Your task to perform on an android device: delete location history Image 0: 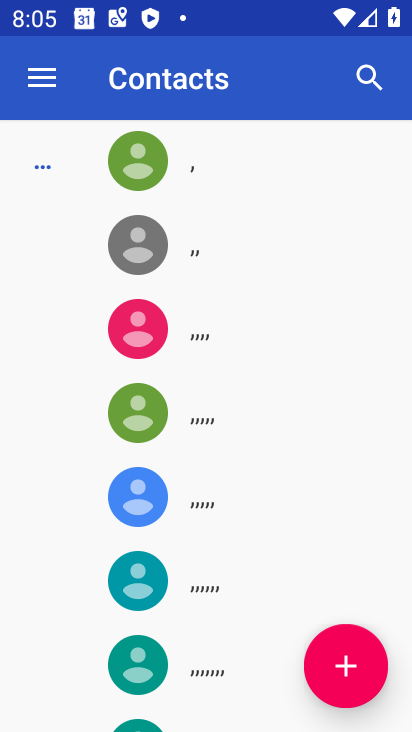
Step 0: press back button
Your task to perform on an android device: delete location history Image 1: 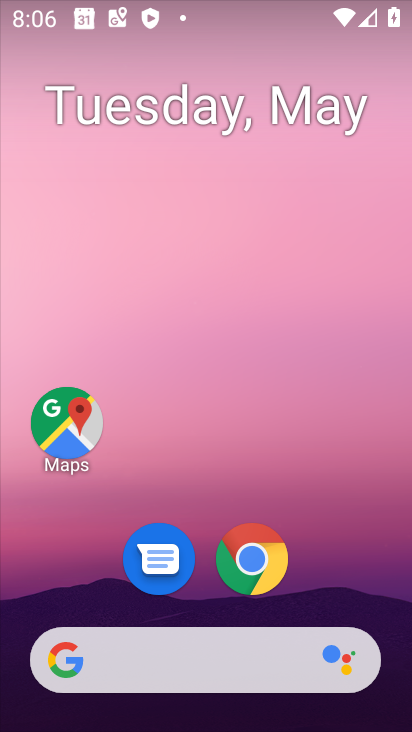
Step 1: drag from (322, 580) to (176, 209)
Your task to perform on an android device: delete location history Image 2: 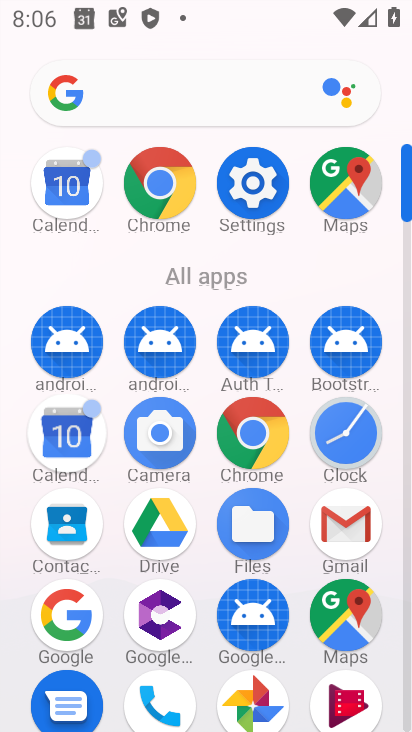
Step 2: click (340, 620)
Your task to perform on an android device: delete location history Image 3: 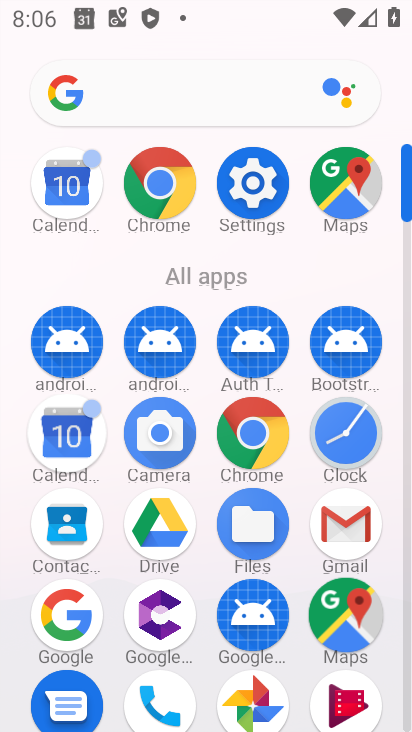
Step 3: click (340, 620)
Your task to perform on an android device: delete location history Image 4: 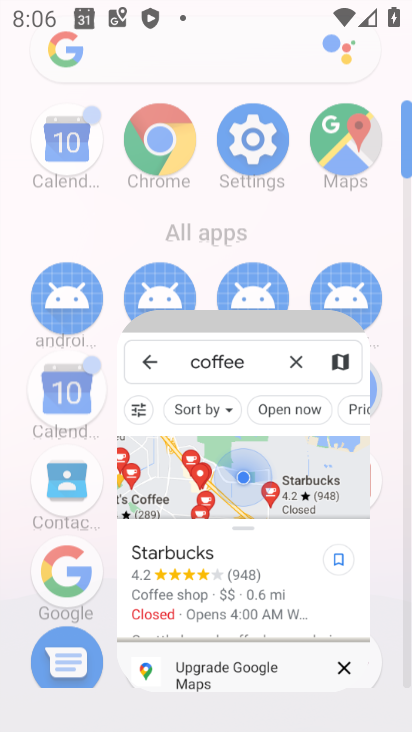
Step 4: click (340, 620)
Your task to perform on an android device: delete location history Image 5: 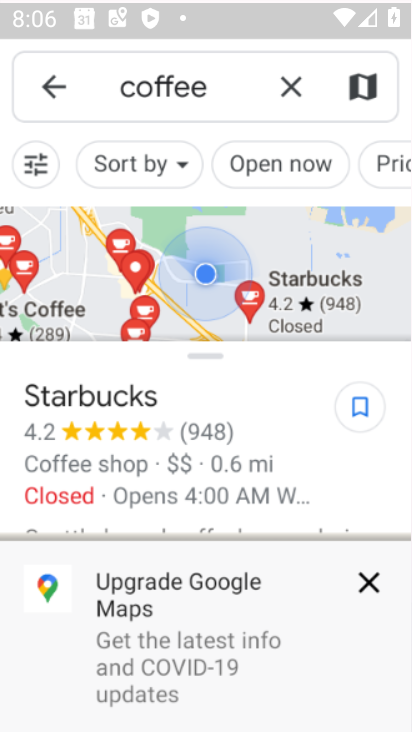
Step 5: click (340, 620)
Your task to perform on an android device: delete location history Image 6: 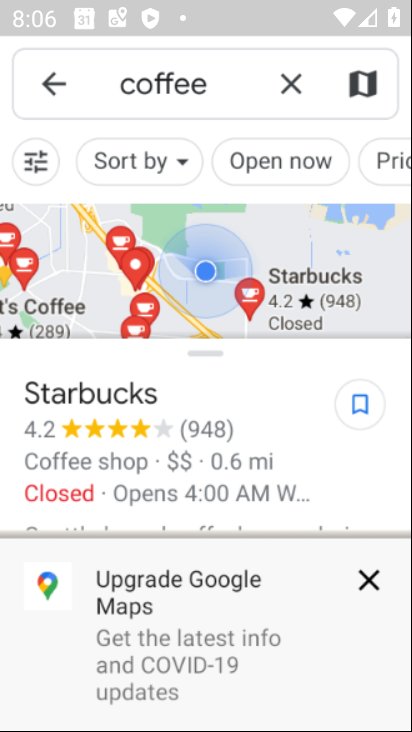
Step 6: click (340, 619)
Your task to perform on an android device: delete location history Image 7: 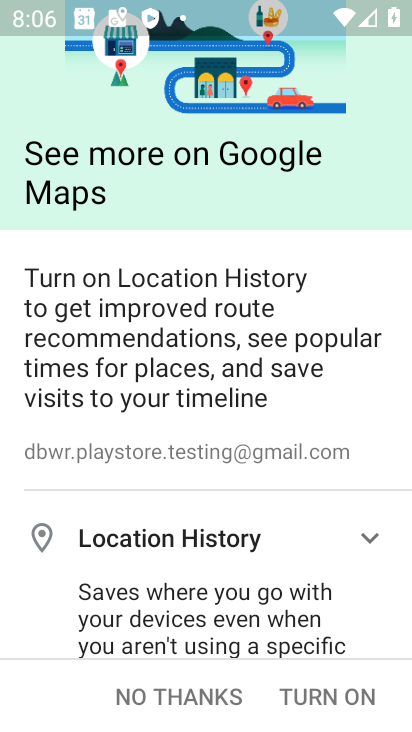
Step 7: press back button
Your task to perform on an android device: delete location history Image 8: 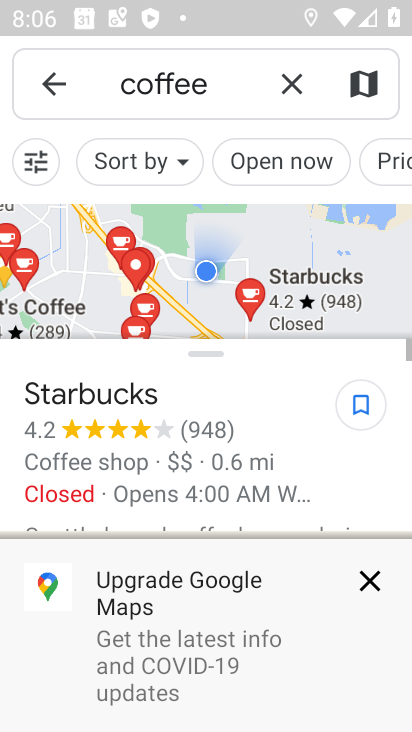
Step 8: click (60, 89)
Your task to perform on an android device: delete location history Image 9: 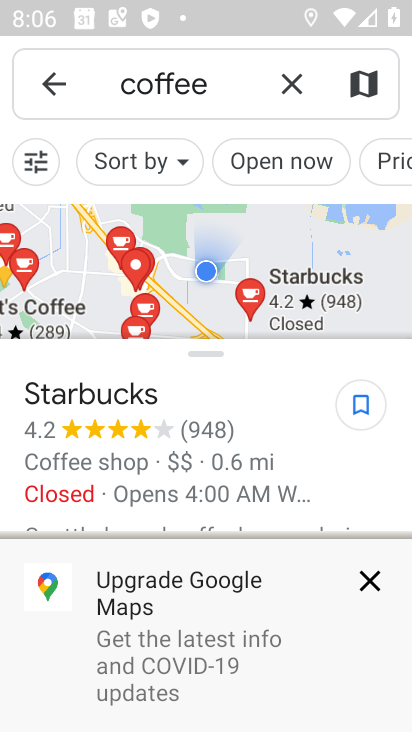
Step 9: click (60, 89)
Your task to perform on an android device: delete location history Image 10: 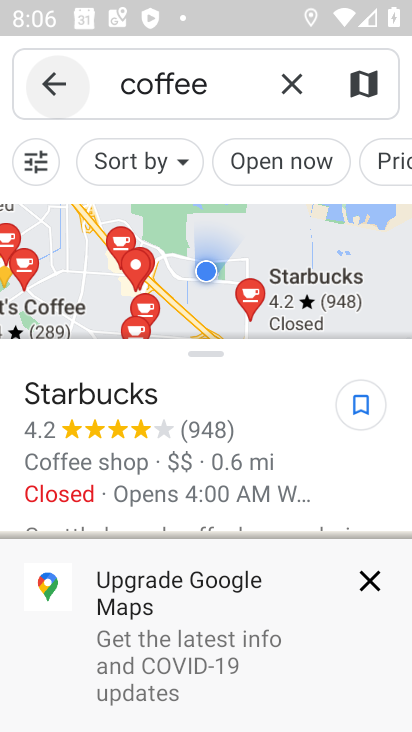
Step 10: click (60, 89)
Your task to perform on an android device: delete location history Image 11: 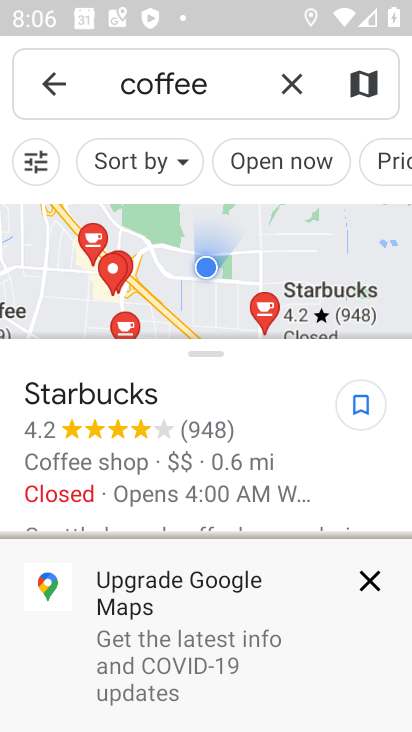
Step 11: click (60, 89)
Your task to perform on an android device: delete location history Image 12: 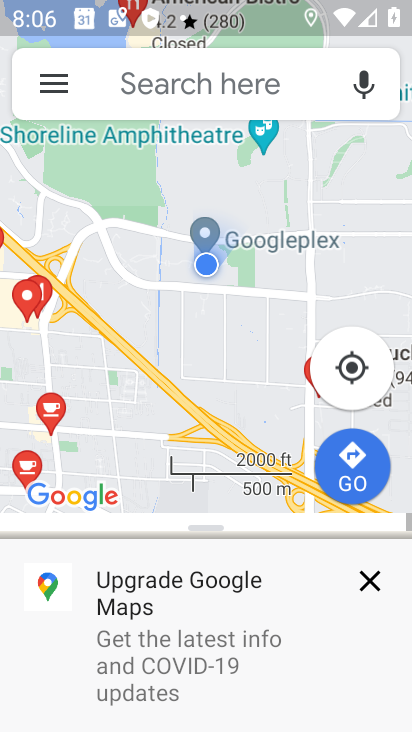
Step 12: click (60, 89)
Your task to perform on an android device: delete location history Image 13: 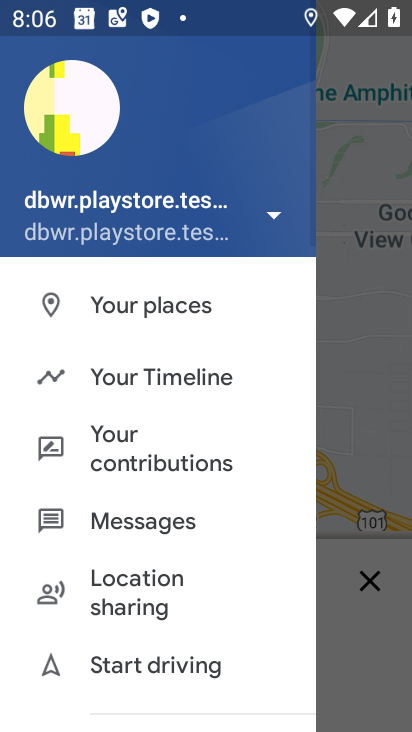
Step 13: click (187, 367)
Your task to perform on an android device: delete location history Image 14: 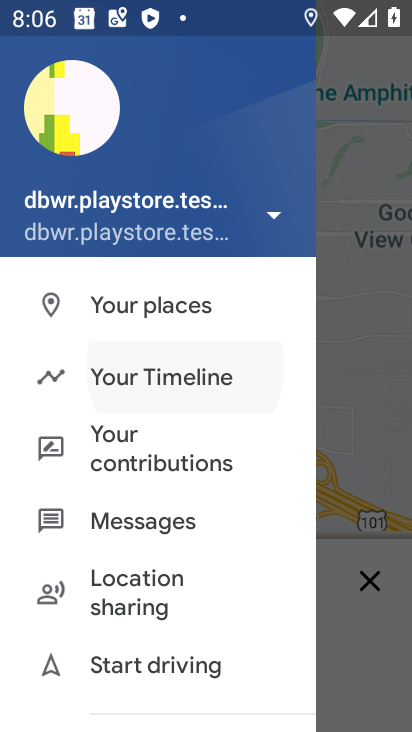
Step 14: click (187, 367)
Your task to perform on an android device: delete location history Image 15: 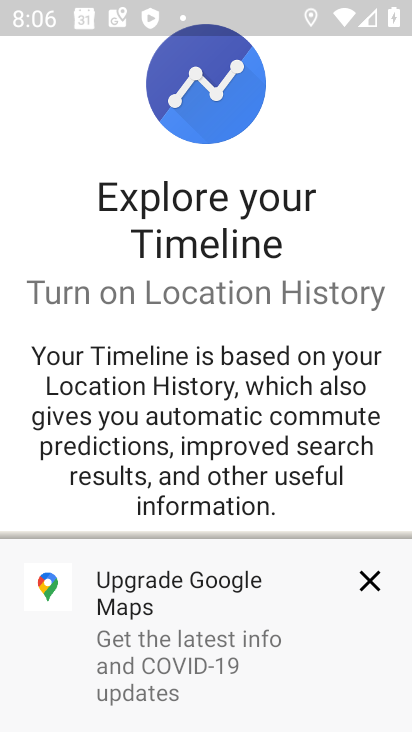
Step 15: click (371, 582)
Your task to perform on an android device: delete location history Image 16: 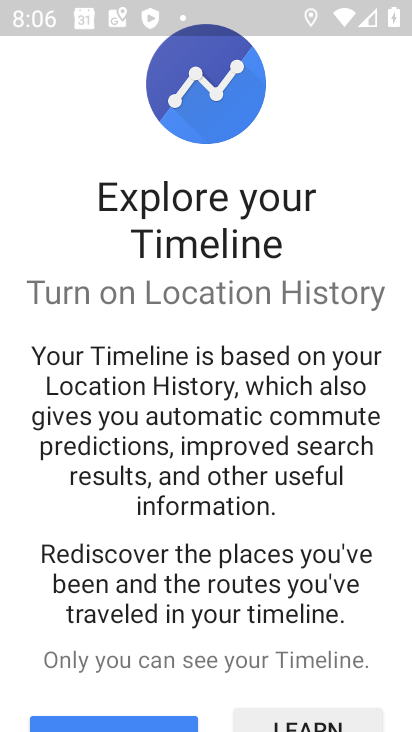
Step 16: drag from (344, 635) to (328, 186)
Your task to perform on an android device: delete location history Image 17: 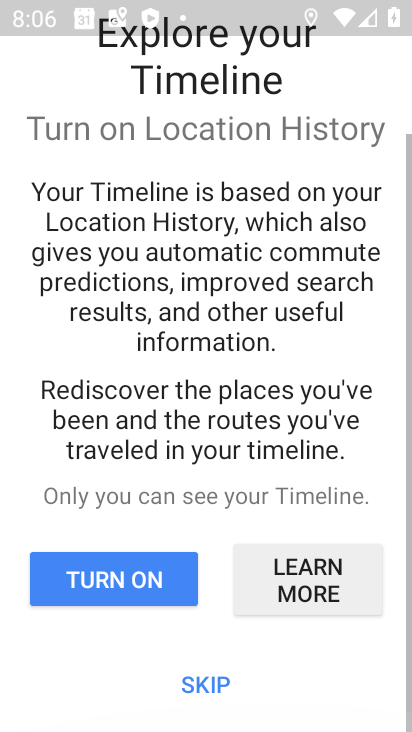
Step 17: drag from (239, 551) to (200, 193)
Your task to perform on an android device: delete location history Image 18: 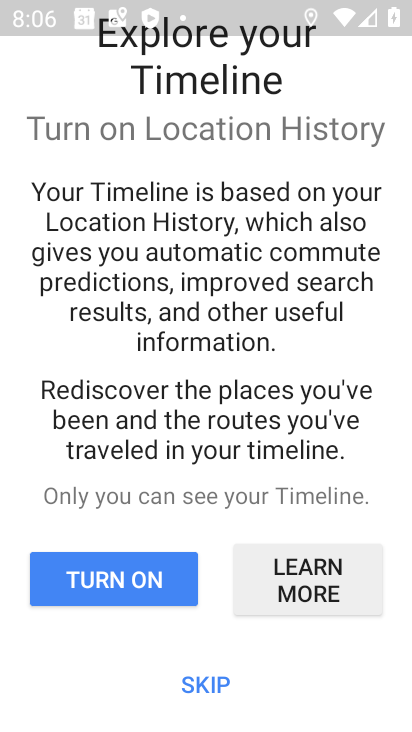
Step 18: click (113, 585)
Your task to perform on an android device: delete location history Image 19: 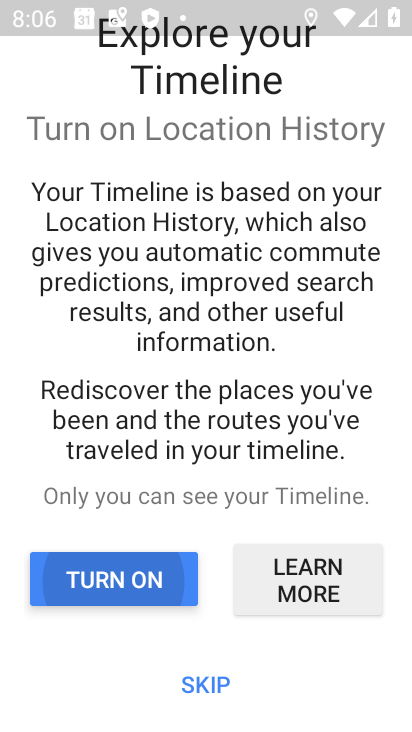
Step 19: click (113, 585)
Your task to perform on an android device: delete location history Image 20: 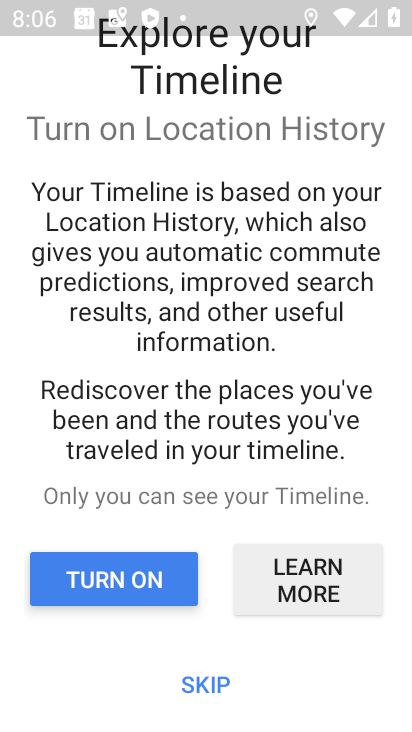
Step 20: click (113, 585)
Your task to perform on an android device: delete location history Image 21: 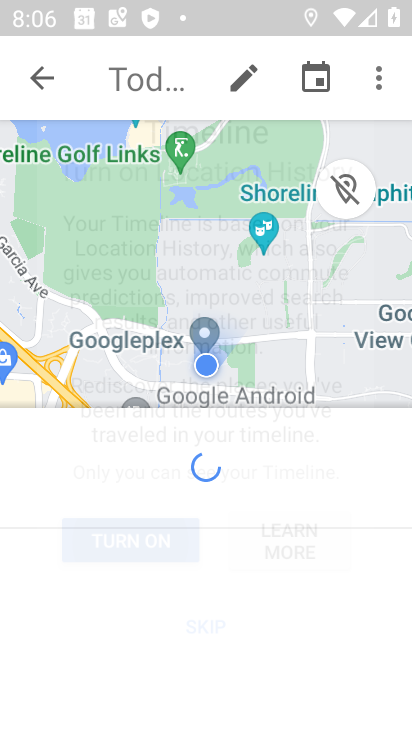
Step 21: click (110, 587)
Your task to perform on an android device: delete location history Image 22: 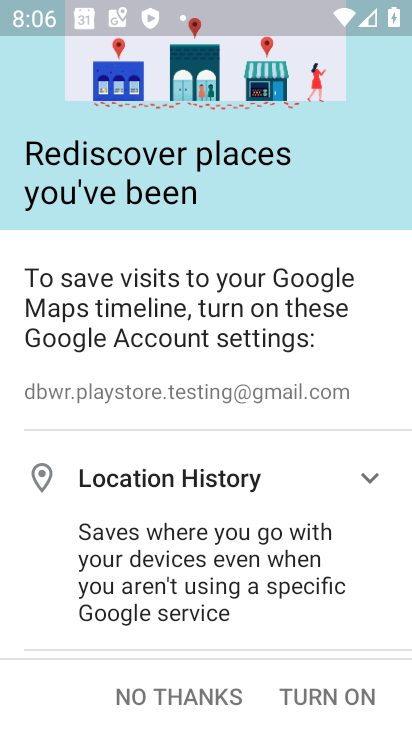
Step 22: drag from (261, 573) to (239, 323)
Your task to perform on an android device: delete location history Image 23: 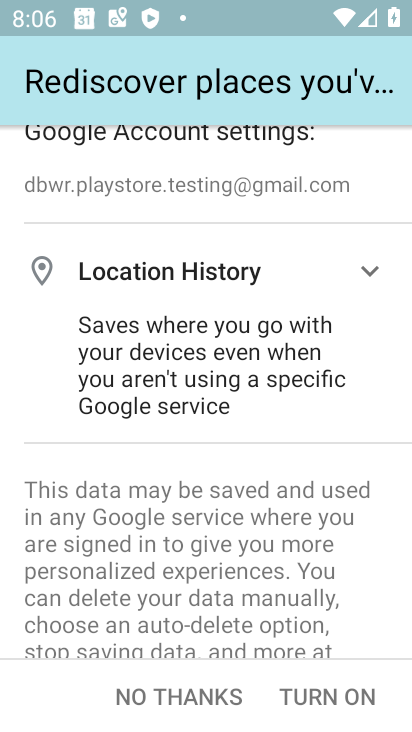
Step 23: drag from (215, 575) to (206, 267)
Your task to perform on an android device: delete location history Image 24: 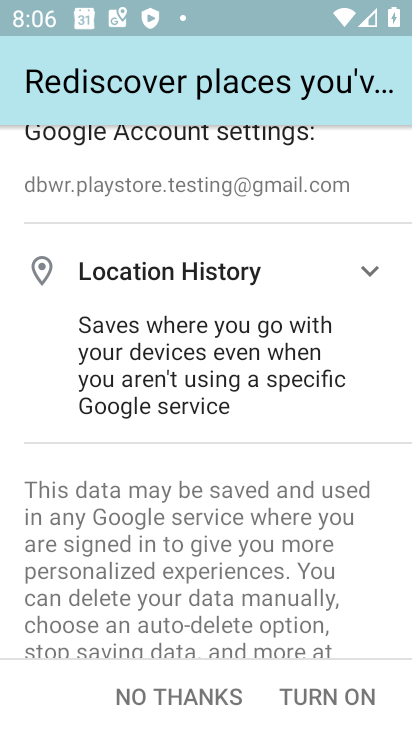
Step 24: drag from (212, 513) to (222, 315)
Your task to perform on an android device: delete location history Image 25: 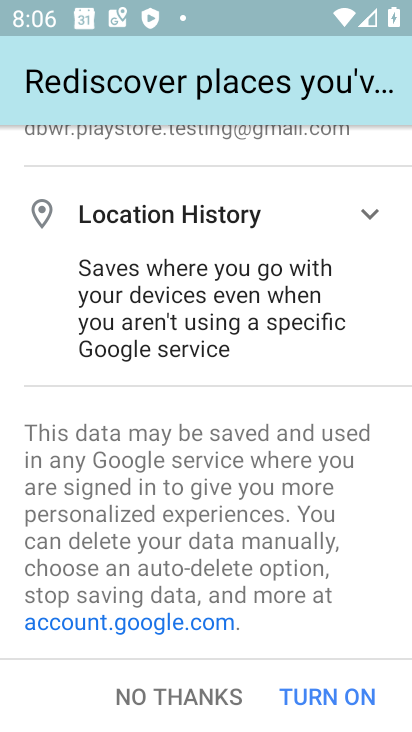
Step 25: drag from (229, 256) to (230, 500)
Your task to perform on an android device: delete location history Image 26: 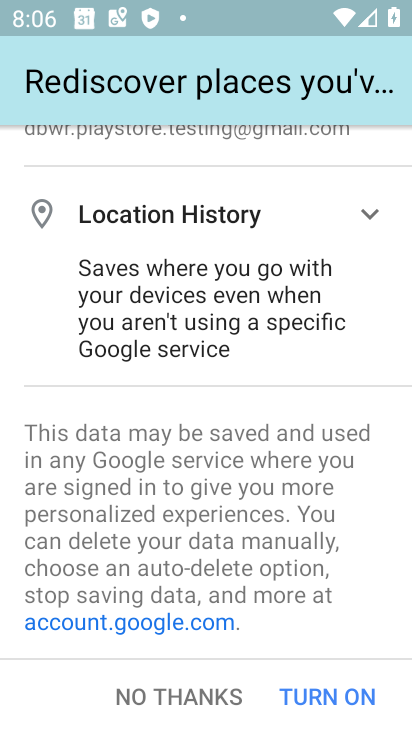
Step 26: drag from (271, 330) to (290, 200)
Your task to perform on an android device: delete location history Image 27: 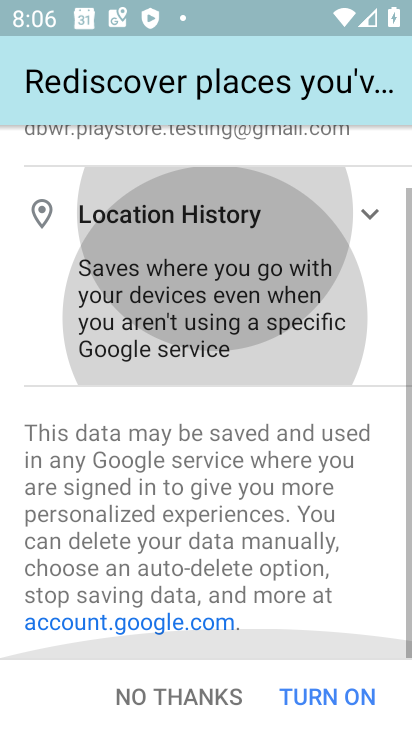
Step 27: drag from (298, 376) to (342, 80)
Your task to perform on an android device: delete location history Image 28: 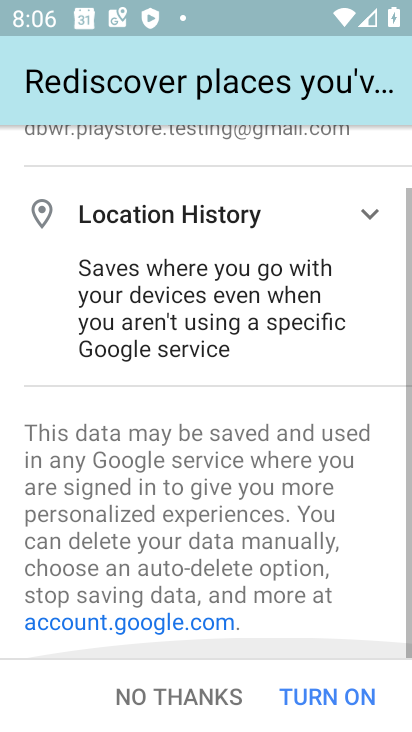
Step 28: drag from (226, 559) to (198, 220)
Your task to perform on an android device: delete location history Image 29: 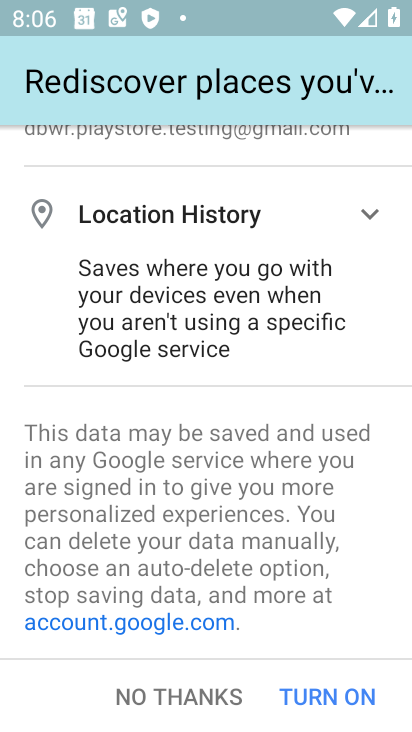
Step 29: drag from (242, 282) to (234, 542)
Your task to perform on an android device: delete location history Image 30: 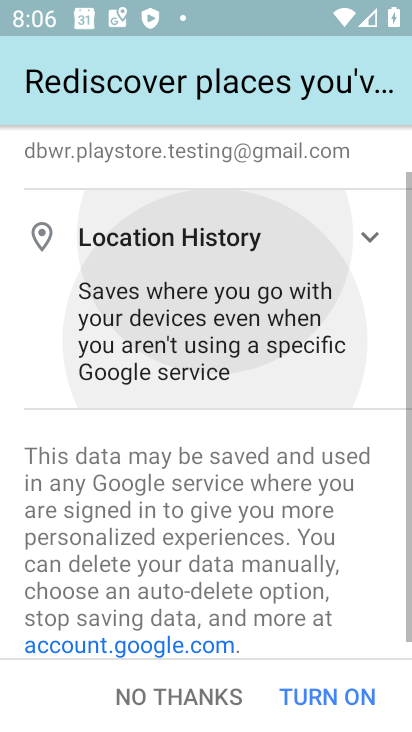
Step 30: drag from (193, 328) to (193, 548)
Your task to perform on an android device: delete location history Image 31: 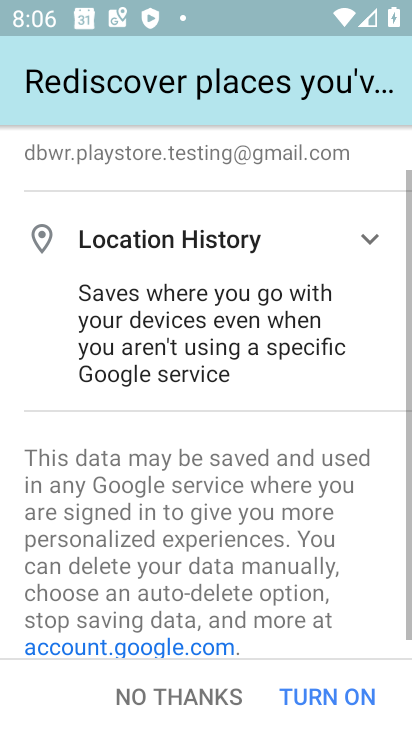
Step 31: drag from (267, 241) to (263, 615)
Your task to perform on an android device: delete location history Image 32: 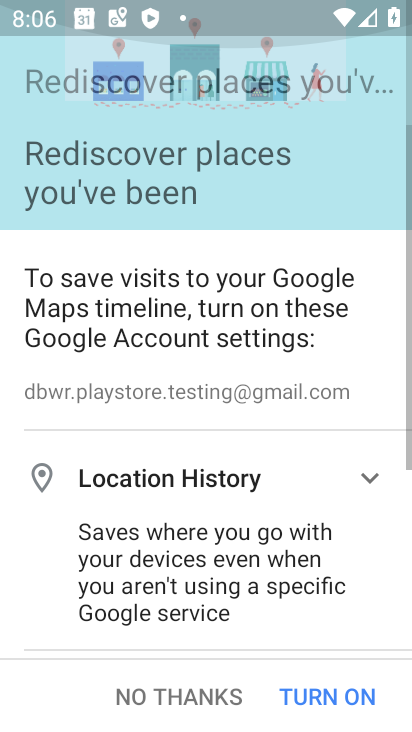
Step 32: drag from (259, 271) to (262, 635)
Your task to perform on an android device: delete location history Image 33: 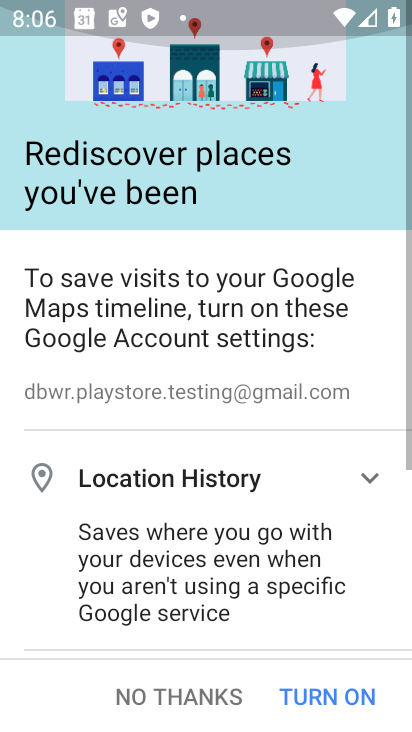
Step 33: drag from (238, 204) to (171, 670)
Your task to perform on an android device: delete location history Image 34: 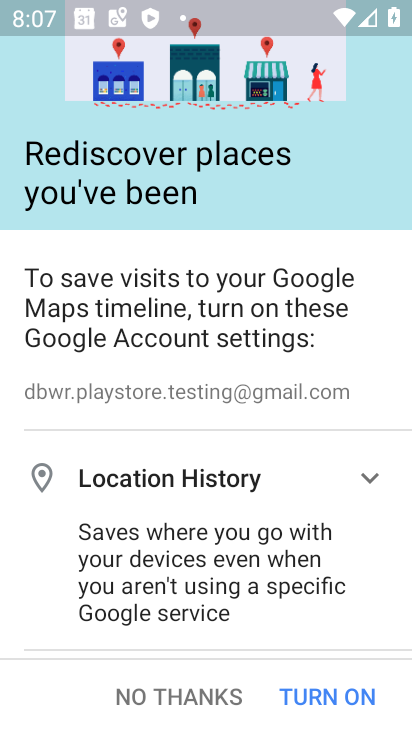
Step 34: press back button
Your task to perform on an android device: delete location history Image 35: 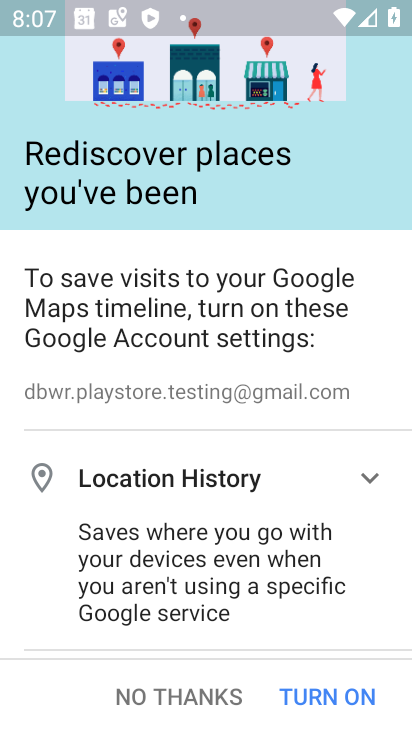
Step 35: press back button
Your task to perform on an android device: delete location history Image 36: 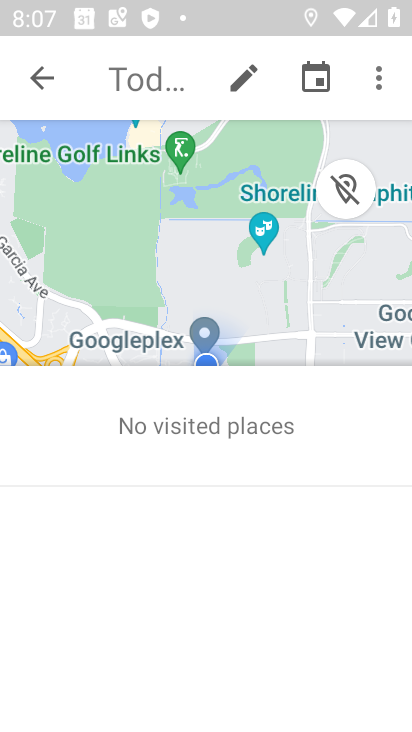
Step 36: press back button
Your task to perform on an android device: delete location history Image 37: 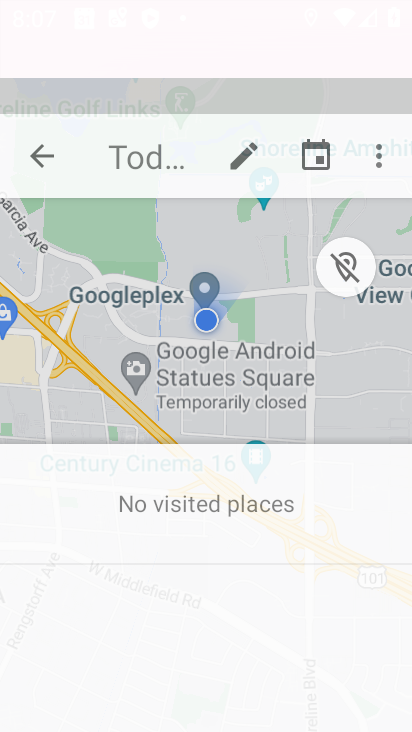
Step 37: click (61, 82)
Your task to perform on an android device: delete location history Image 38: 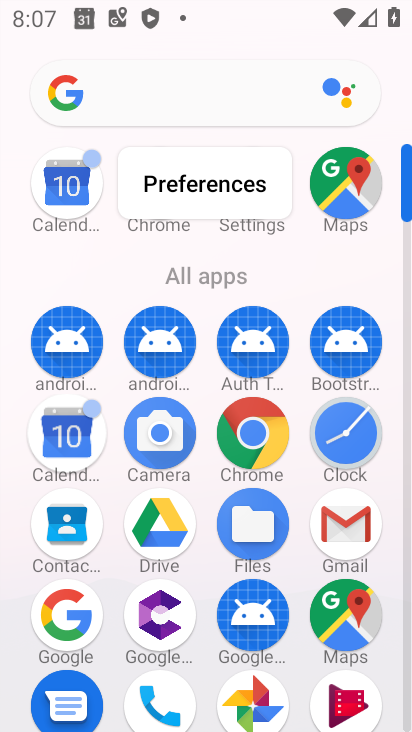
Step 38: click (346, 609)
Your task to perform on an android device: delete location history Image 39: 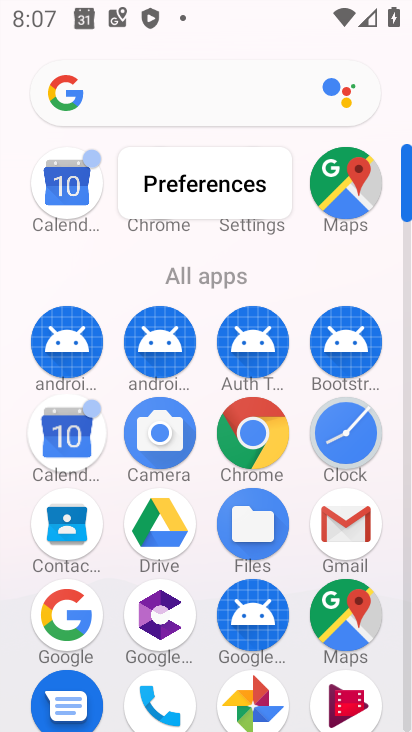
Step 39: click (346, 609)
Your task to perform on an android device: delete location history Image 40: 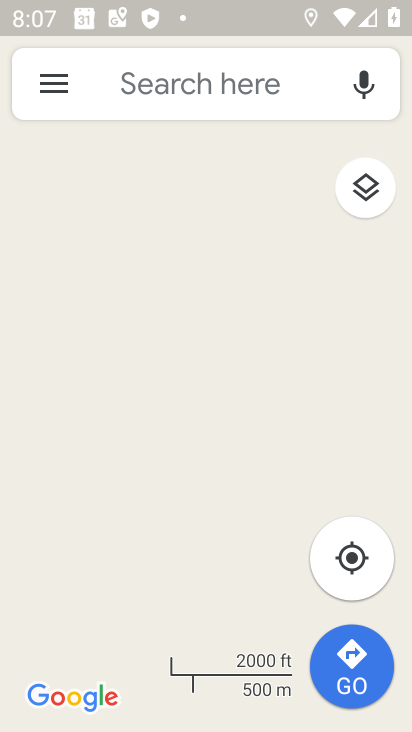
Step 40: click (46, 83)
Your task to perform on an android device: delete location history Image 41: 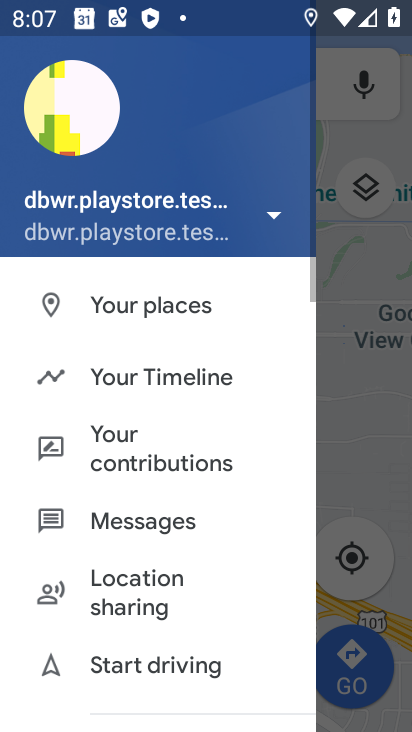
Step 41: click (169, 379)
Your task to perform on an android device: delete location history Image 42: 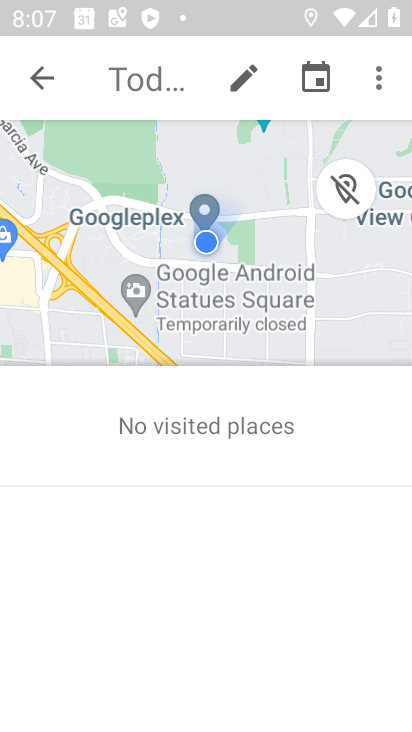
Step 42: click (377, 81)
Your task to perform on an android device: delete location history Image 43: 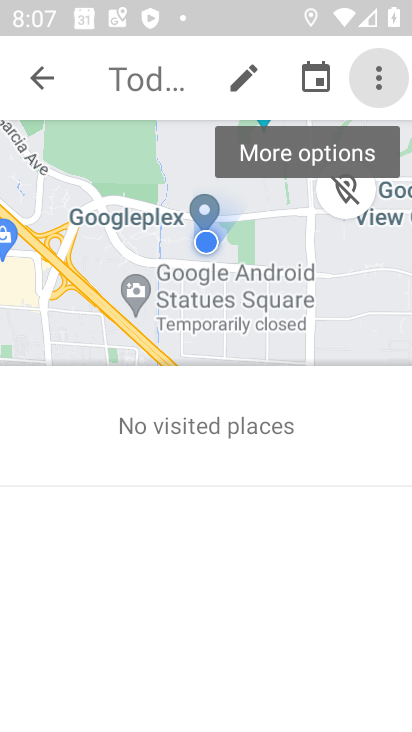
Step 43: click (377, 81)
Your task to perform on an android device: delete location history Image 44: 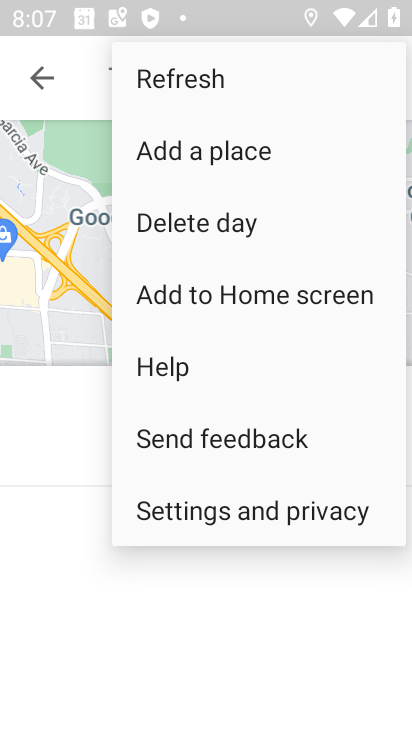
Step 44: click (214, 503)
Your task to perform on an android device: delete location history Image 45: 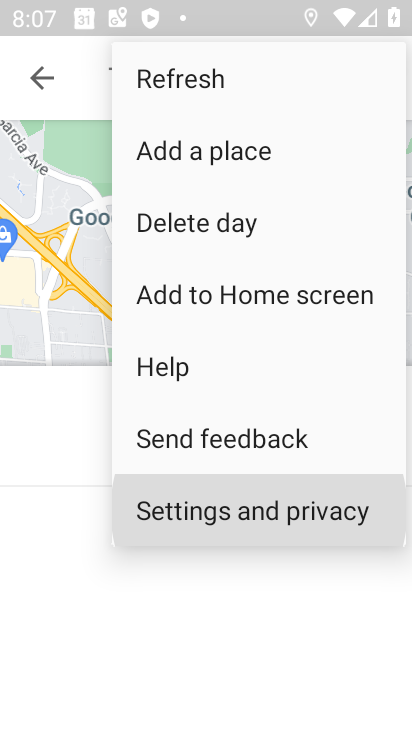
Step 45: click (211, 503)
Your task to perform on an android device: delete location history Image 46: 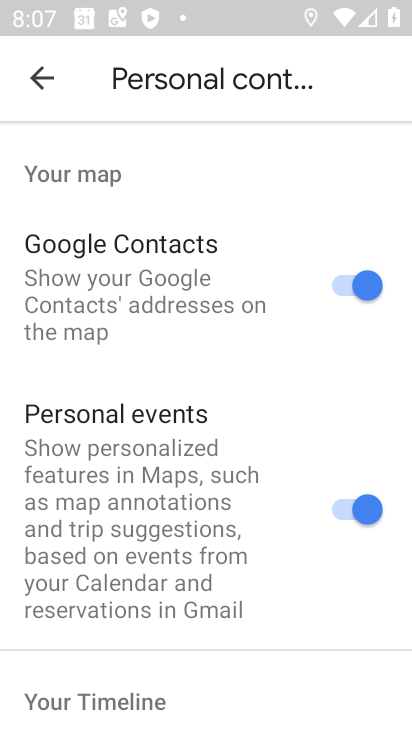
Step 46: drag from (259, 554) to (311, 156)
Your task to perform on an android device: delete location history Image 47: 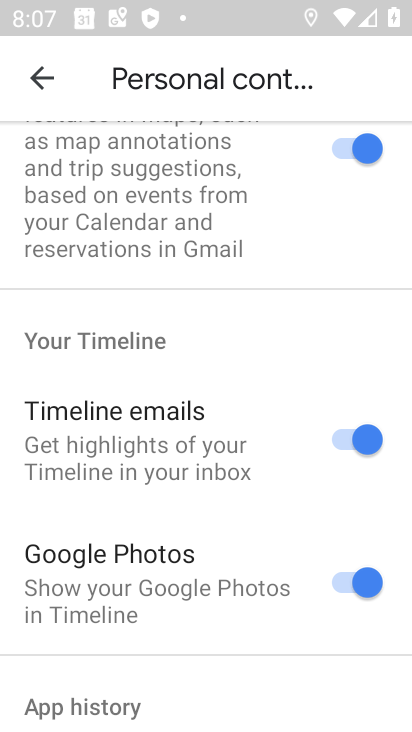
Step 47: drag from (207, 531) to (170, 159)
Your task to perform on an android device: delete location history Image 48: 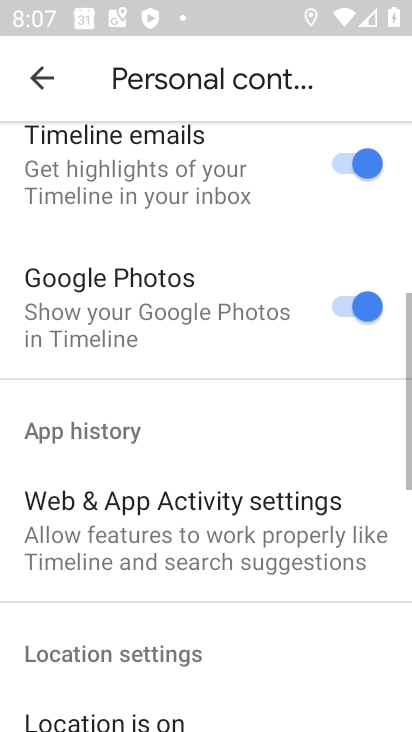
Step 48: drag from (343, 589) to (330, 275)
Your task to perform on an android device: delete location history Image 49: 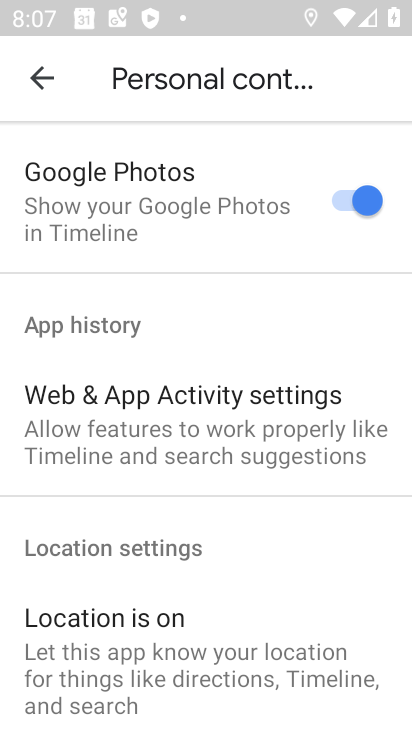
Step 49: drag from (189, 649) to (12, 208)
Your task to perform on an android device: delete location history Image 50: 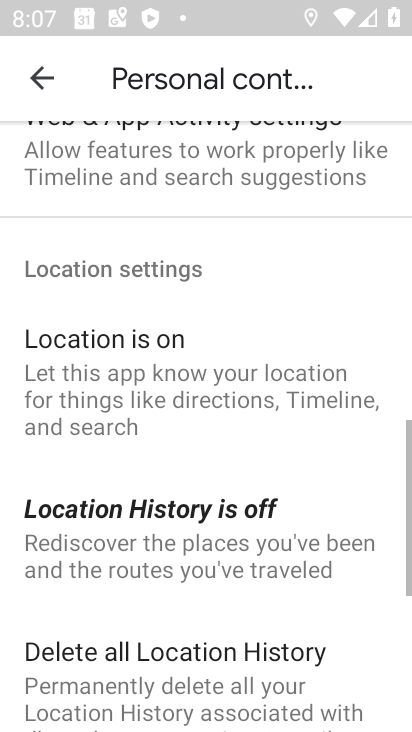
Step 50: drag from (159, 514) to (43, 144)
Your task to perform on an android device: delete location history Image 51: 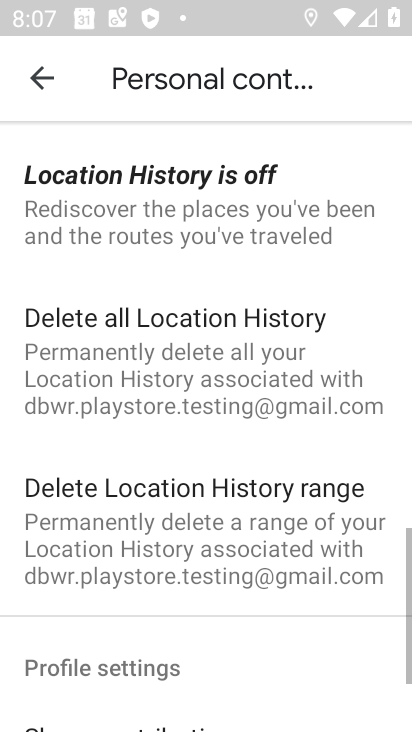
Step 51: drag from (176, 459) to (144, 66)
Your task to perform on an android device: delete location history Image 52: 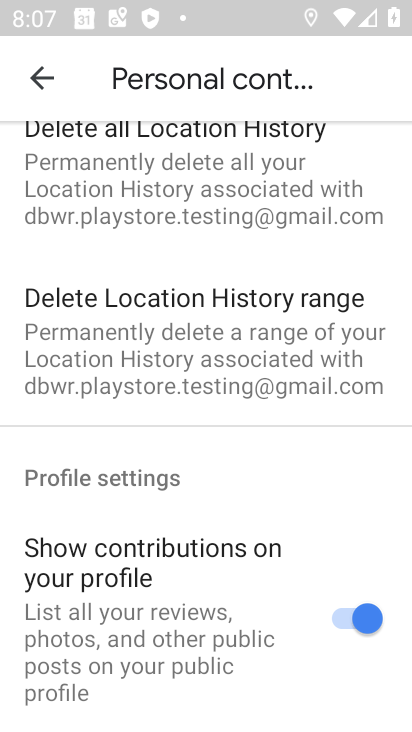
Step 52: click (202, 180)
Your task to perform on an android device: delete location history Image 53: 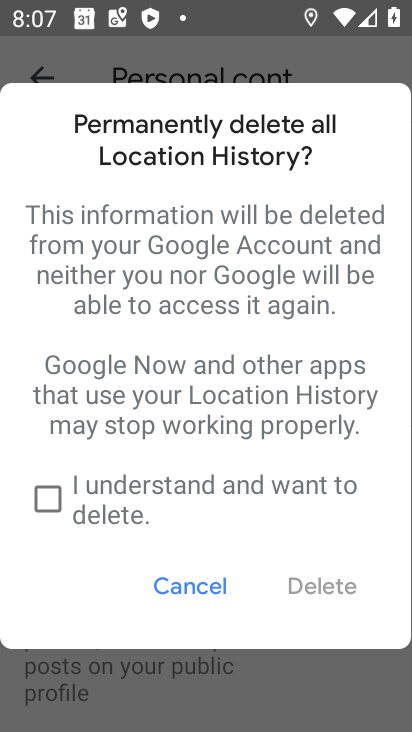
Step 53: click (200, 181)
Your task to perform on an android device: delete location history Image 54: 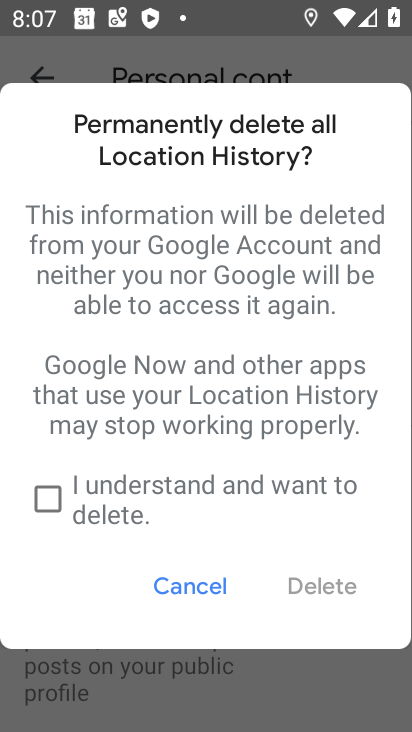
Step 54: click (56, 500)
Your task to perform on an android device: delete location history Image 55: 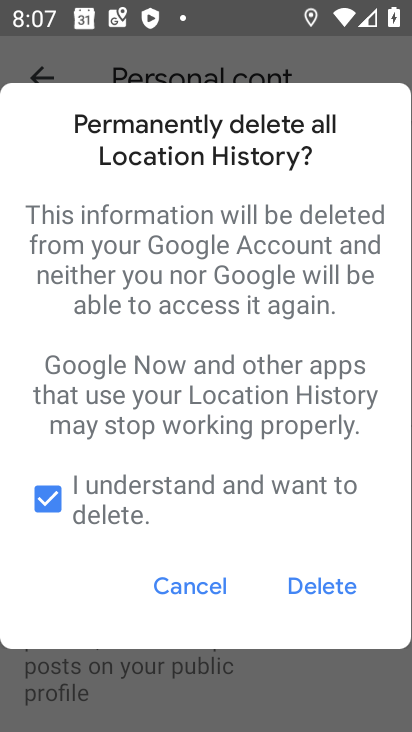
Step 55: click (319, 583)
Your task to perform on an android device: delete location history Image 56: 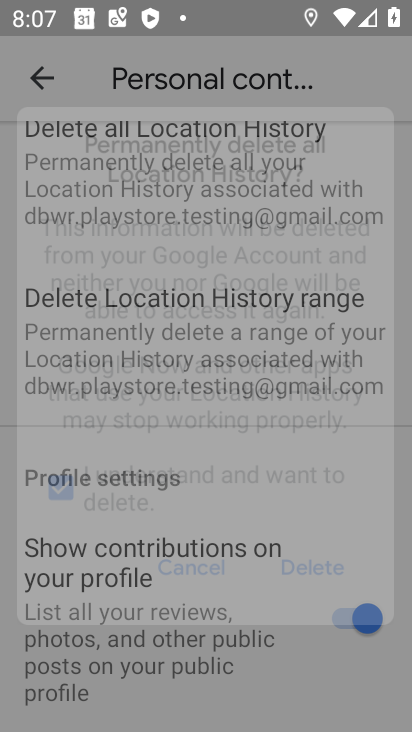
Step 56: click (319, 582)
Your task to perform on an android device: delete location history Image 57: 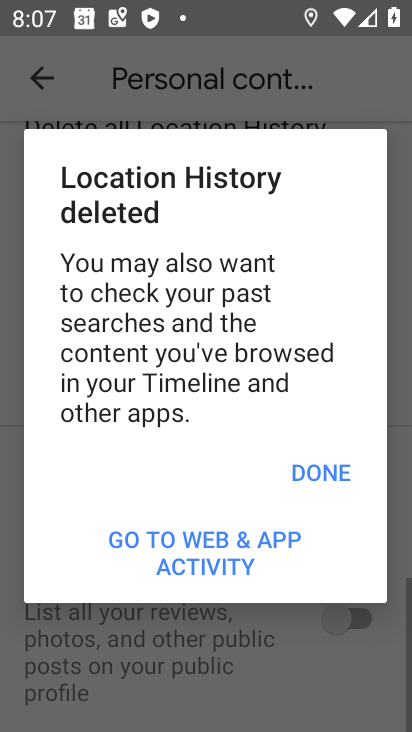
Step 57: task complete